Your task to perform on an android device: Open Amazon Image 0: 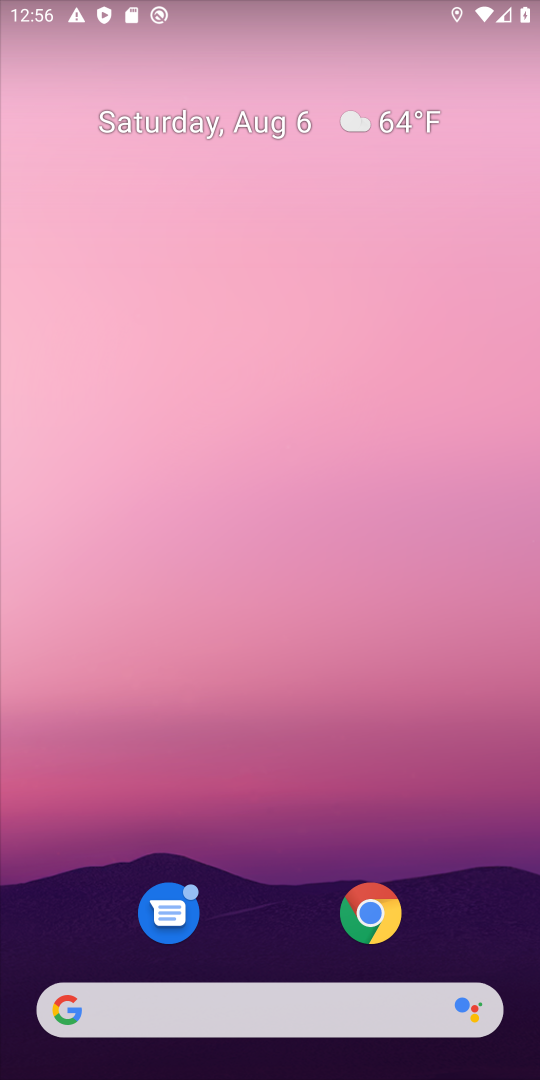
Step 0: press home button
Your task to perform on an android device: Open Amazon Image 1: 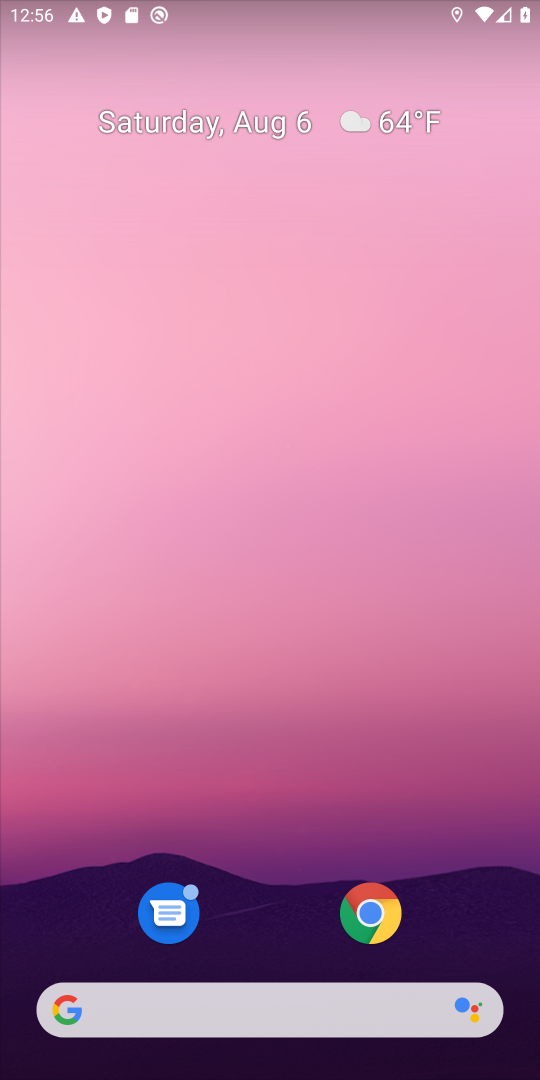
Step 1: drag from (465, 898) to (461, 206)
Your task to perform on an android device: Open Amazon Image 2: 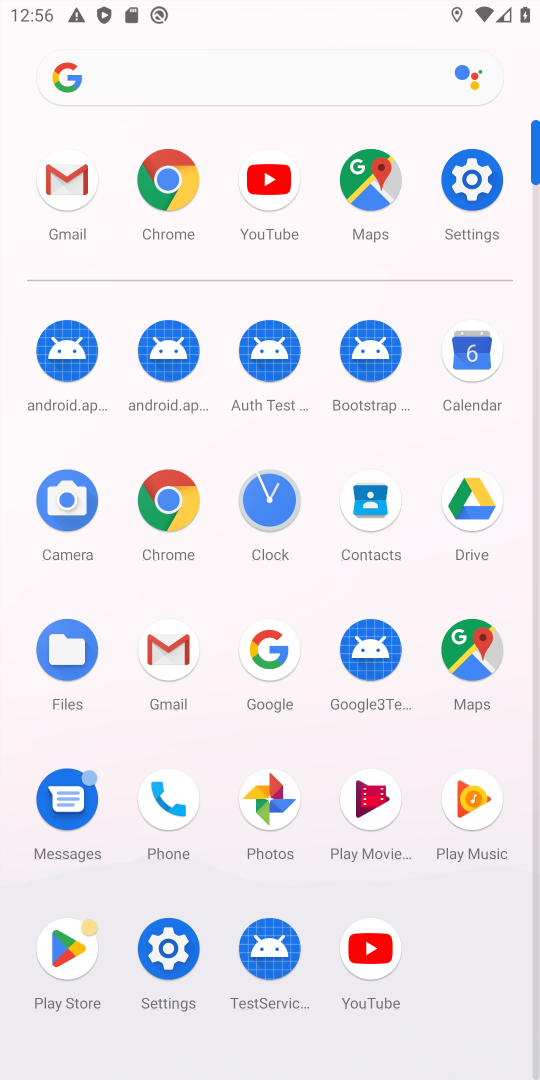
Step 2: click (175, 501)
Your task to perform on an android device: Open Amazon Image 3: 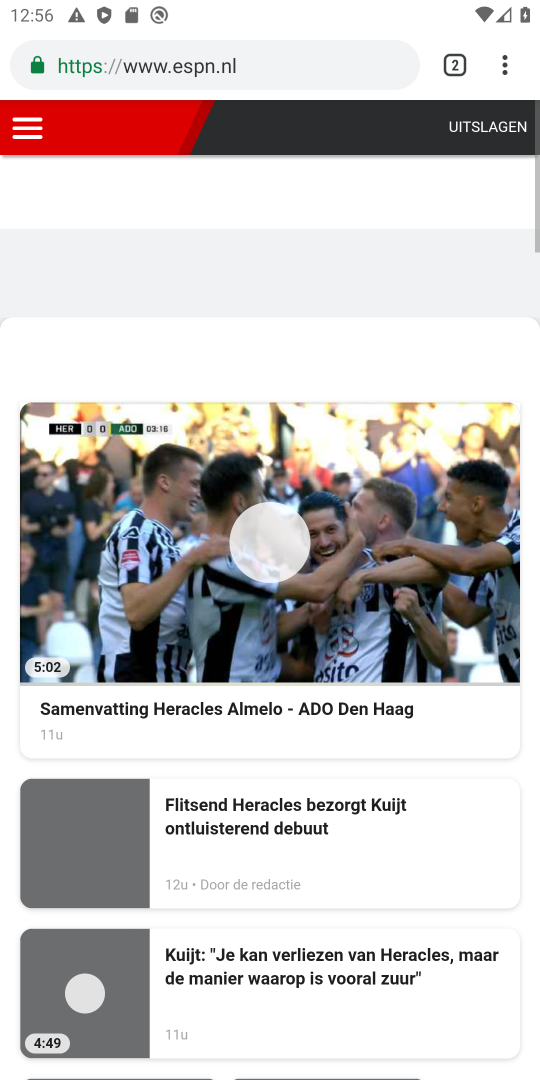
Step 3: click (278, 51)
Your task to perform on an android device: Open Amazon Image 4: 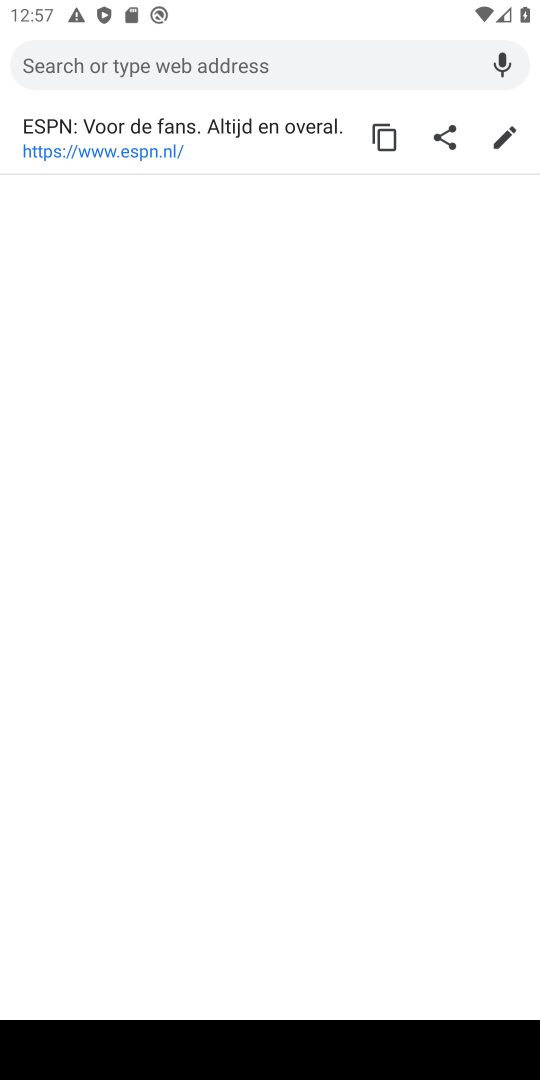
Step 4: type "amazon"
Your task to perform on an android device: Open Amazon Image 5: 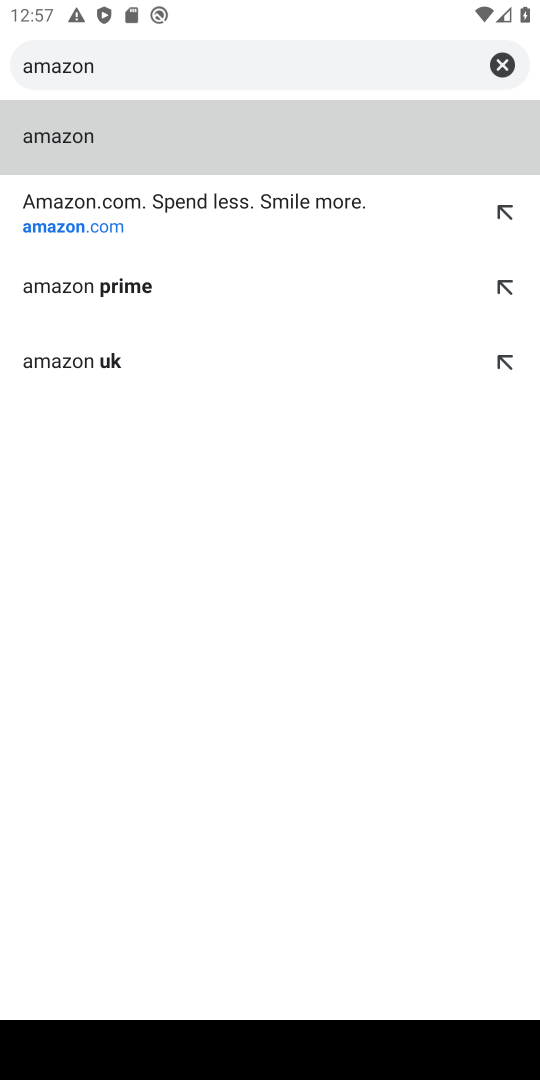
Step 5: click (225, 116)
Your task to perform on an android device: Open Amazon Image 6: 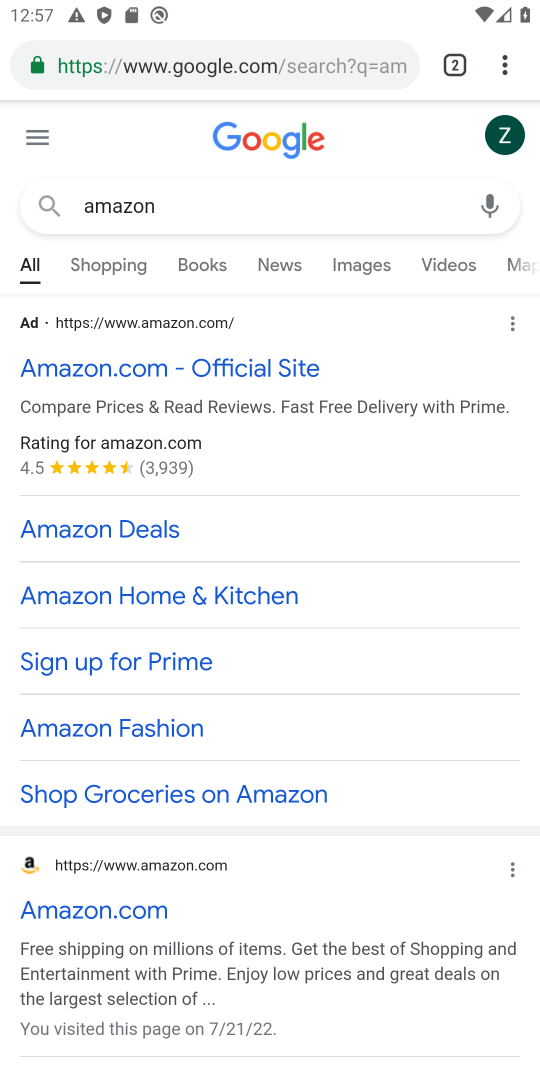
Step 6: task complete